Your task to perform on an android device: Open maps Image 0: 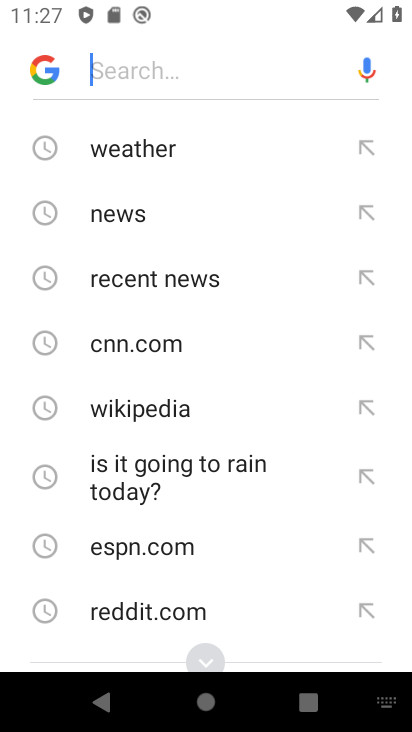
Step 0: press back button
Your task to perform on an android device: Open maps Image 1: 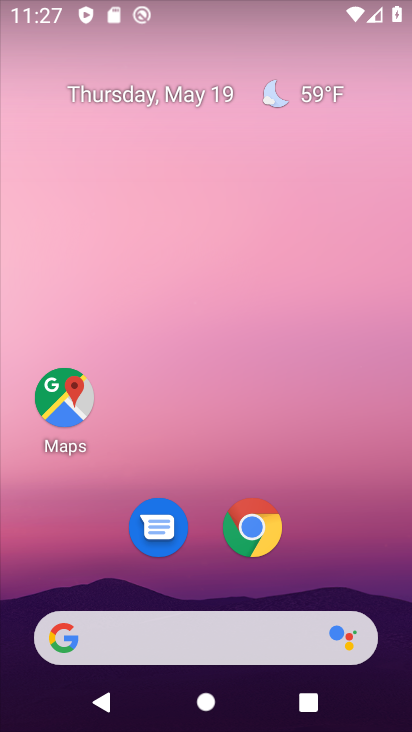
Step 1: click (60, 403)
Your task to perform on an android device: Open maps Image 2: 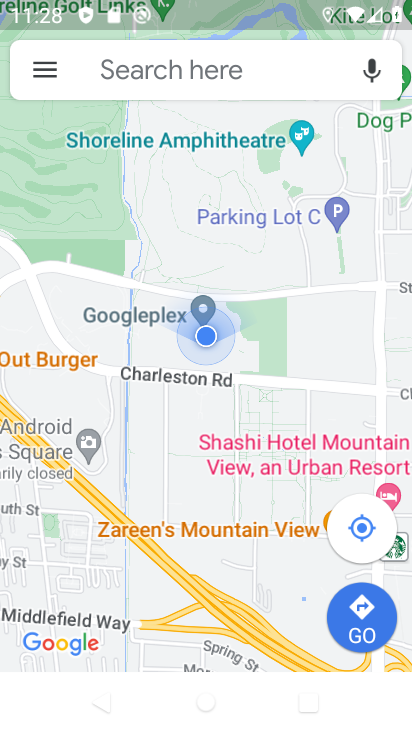
Step 2: task complete